Your task to perform on an android device: Open calendar and show me the second week of next month Image 0: 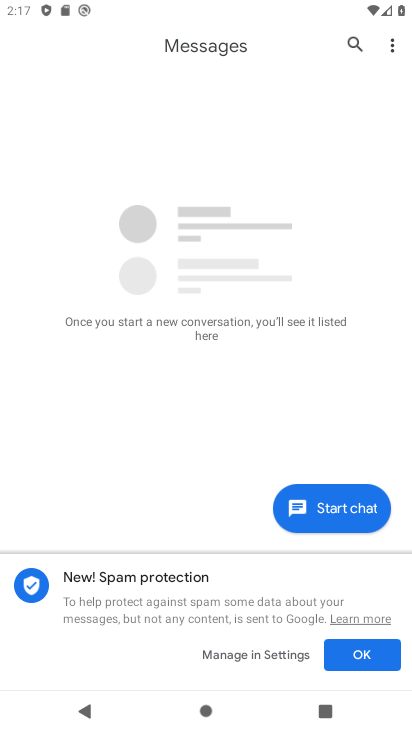
Step 0: press home button
Your task to perform on an android device: Open calendar and show me the second week of next month Image 1: 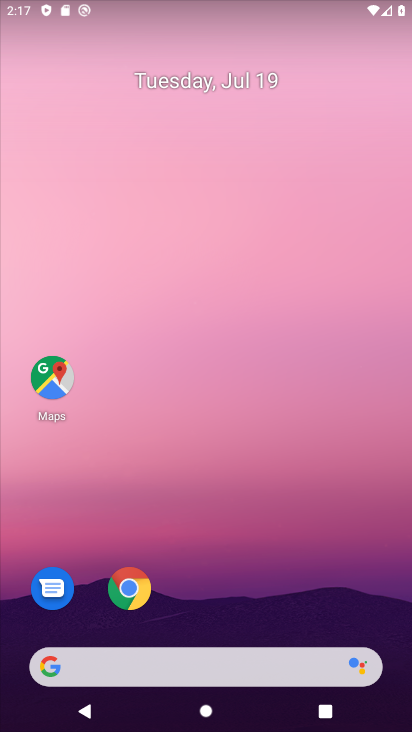
Step 1: drag from (177, 594) to (206, 244)
Your task to perform on an android device: Open calendar and show me the second week of next month Image 2: 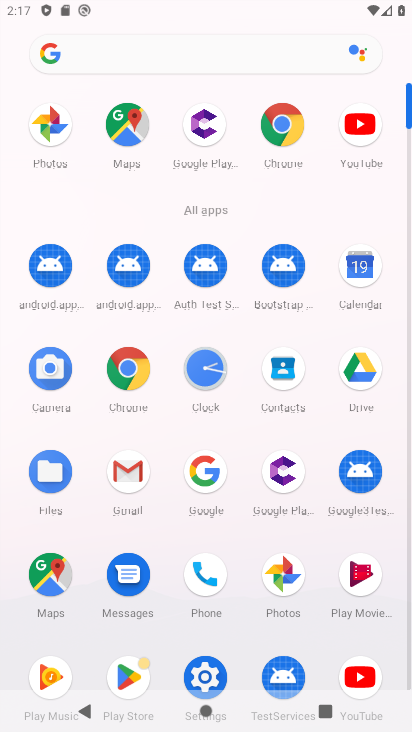
Step 2: click (362, 263)
Your task to perform on an android device: Open calendar and show me the second week of next month Image 3: 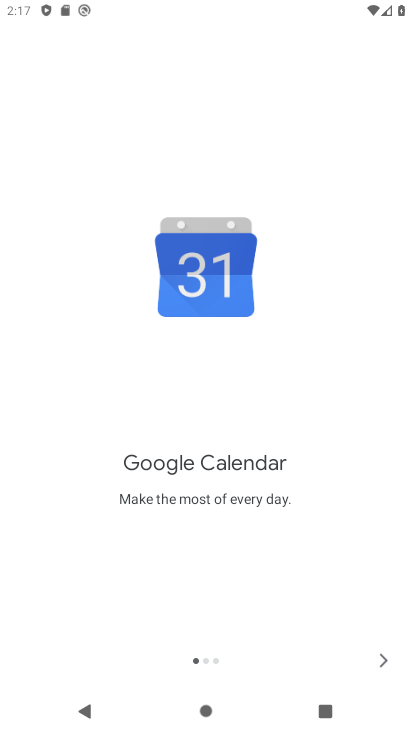
Step 3: click (385, 660)
Your task to perform on an android device: Open calendar and show me the second week of next month Image 4: 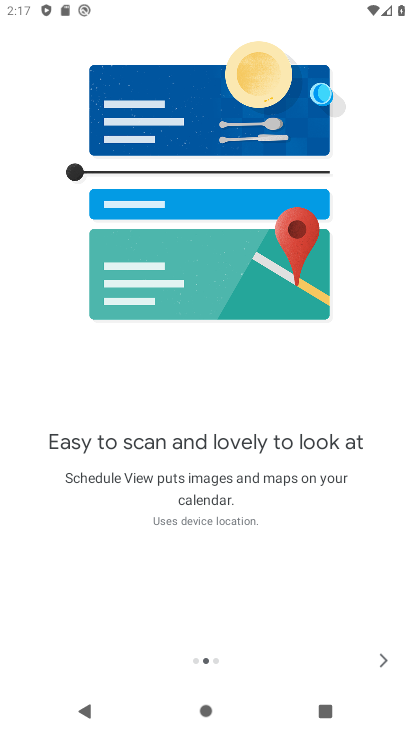
Step 4: click (385, 660)
Your task to perform on an android device: Open calendar and show me the second week of next month Image 5: 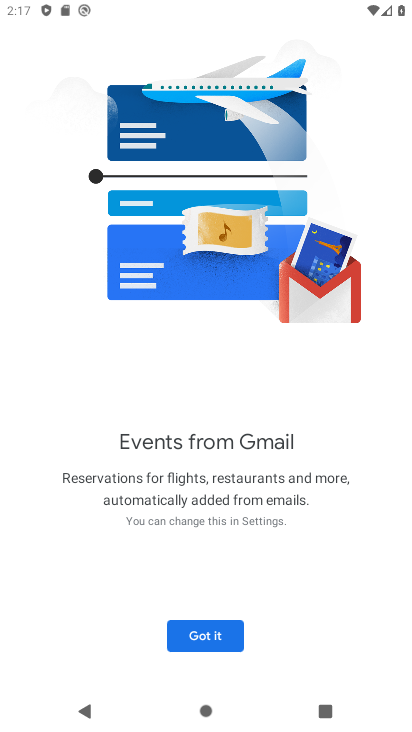
Step 5: click (205, 636)
Your task to perform on an android device: Open calendar and show me the second week of next month Image 6: 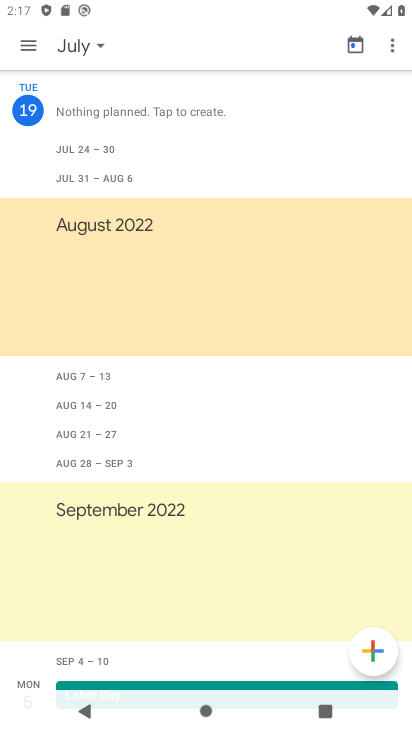
Step 6: click (81, 52)
Your task to perform on an android device: Open calendar and show me the second week of next month Image 7: 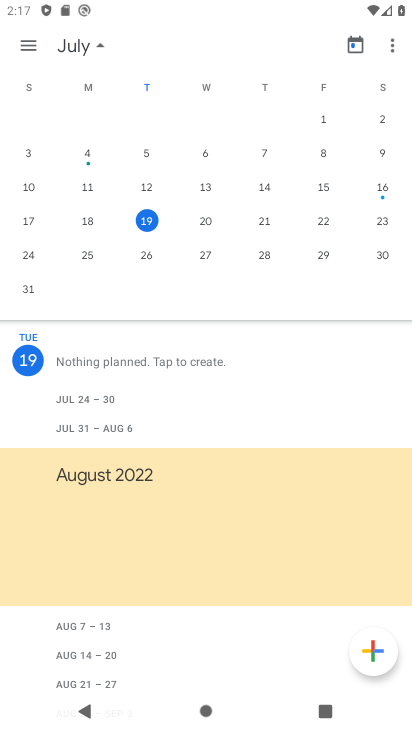
Step 7: click (26, 48)
Your task to perform on an android device: Open calendar and show me the second week of next month Image 8: 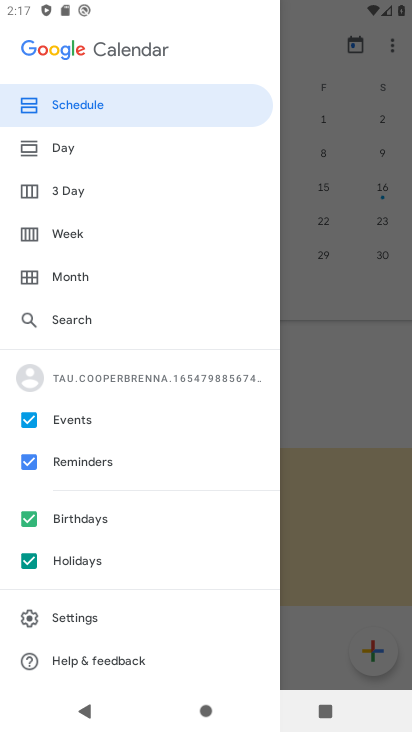
Step 8: click (62, 233)
Your task to perform on an android device: Open calendar and show me the second week of next month Image 9: 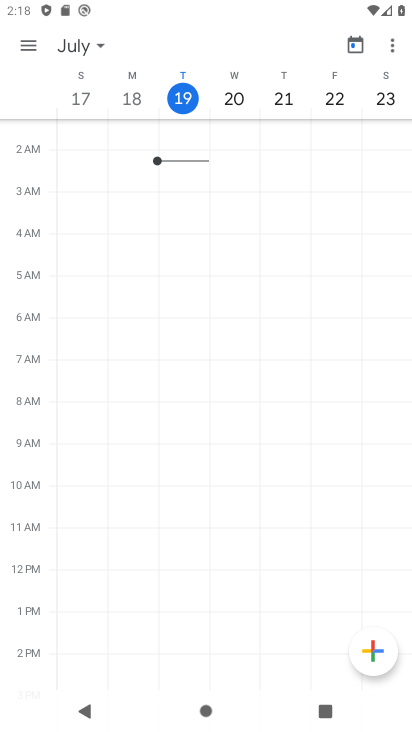
Step 9: click (80, 47)
Your task to perform on an android device: Open calendar and show me the second week of next month Image 10: 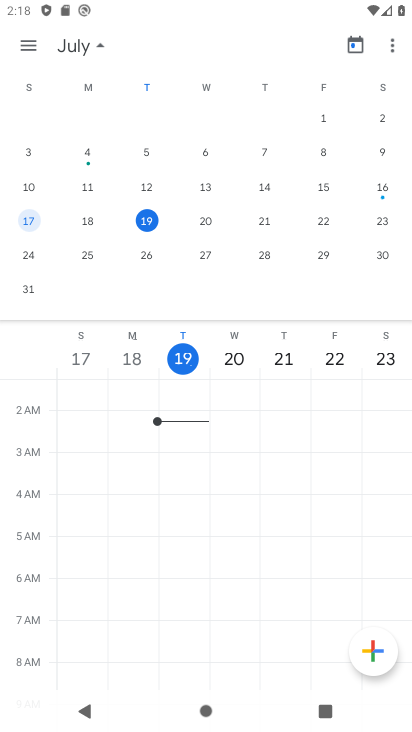
Step 10: drag from (317, 200) to (32, 174)
Your task to perform on an android device: Open calendar and show me the second week of next month Image 11: 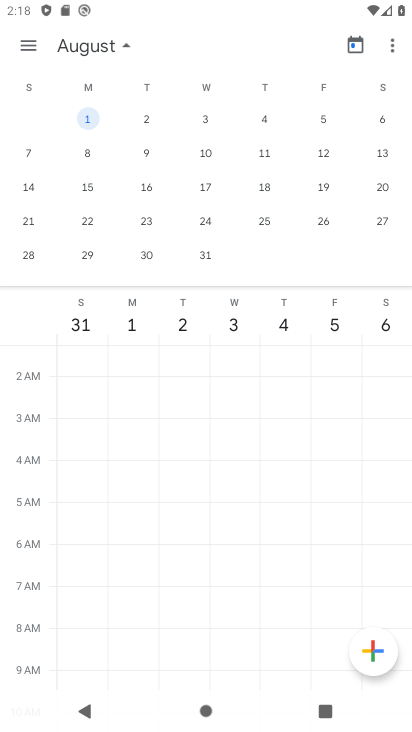
Step 11: click (29, 150)
Your task to perform on an android device: Open calendar and show me the second week of next month Image 12: 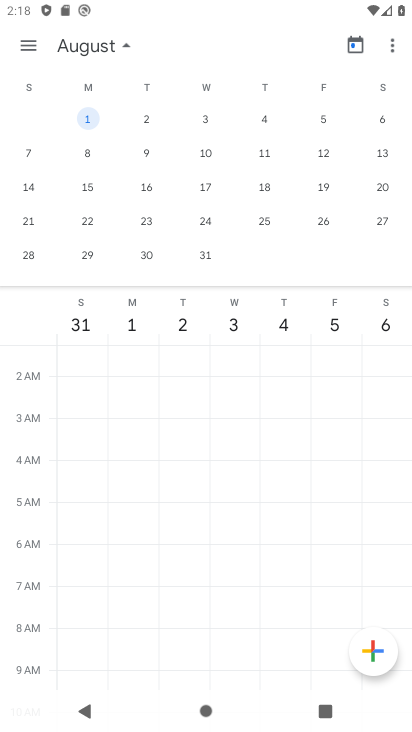
Step 12: click (29, 150)
Your task to perform on an android device: Open calendar and show me the second week of next month Image 13: 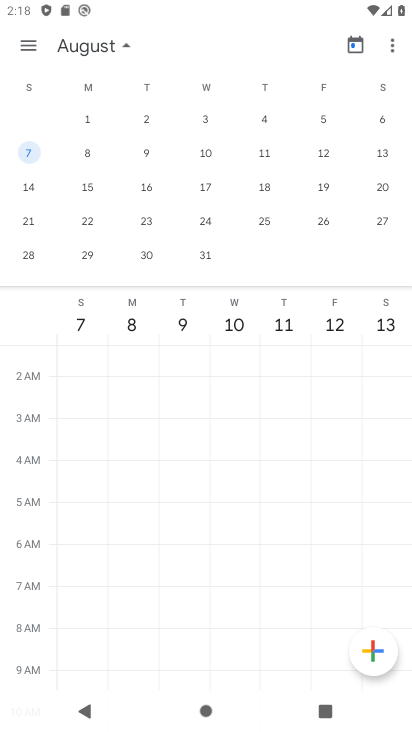
Step 13: task complete